Your task to perform on an android device: delete browsing data in the chrome app Image 0: 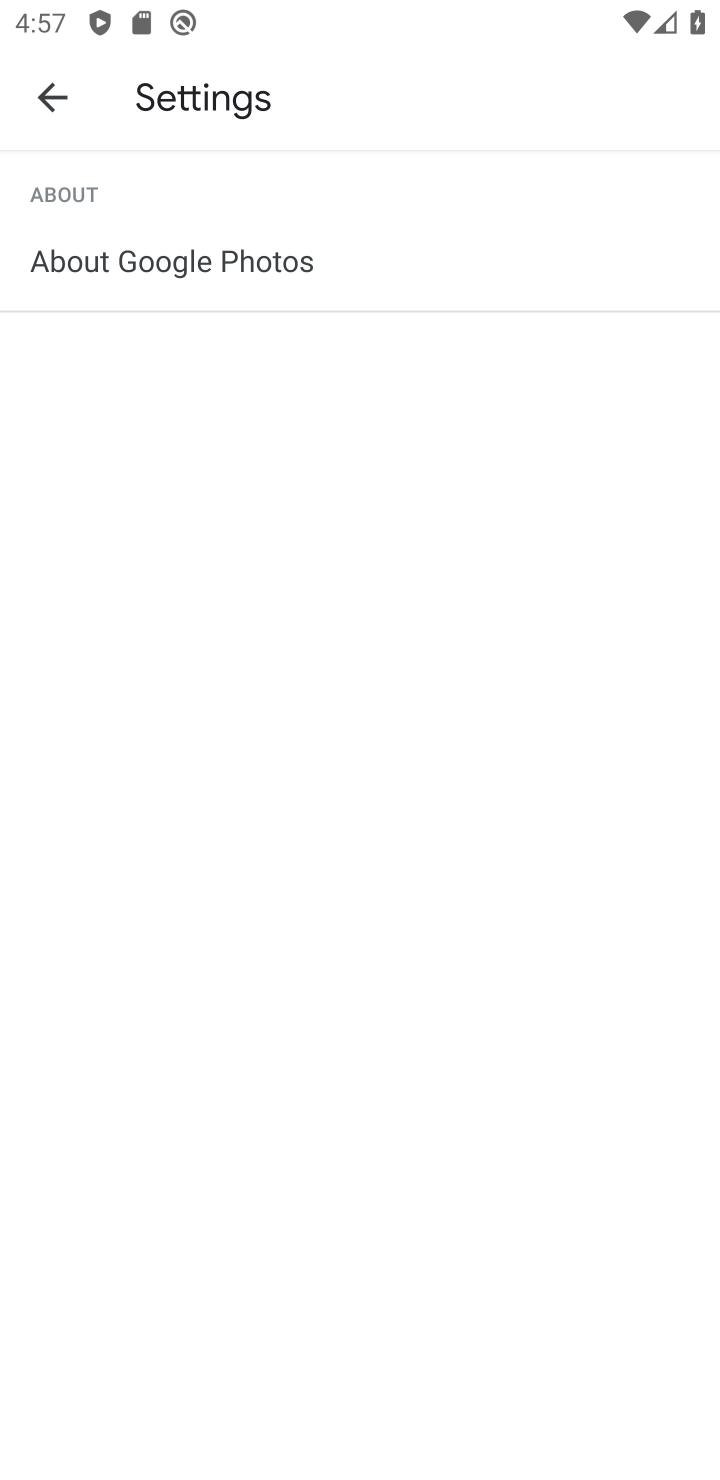
Step 0: press home button
Your task to perform on an android device: delete browsing data in the chrome app Image 1: 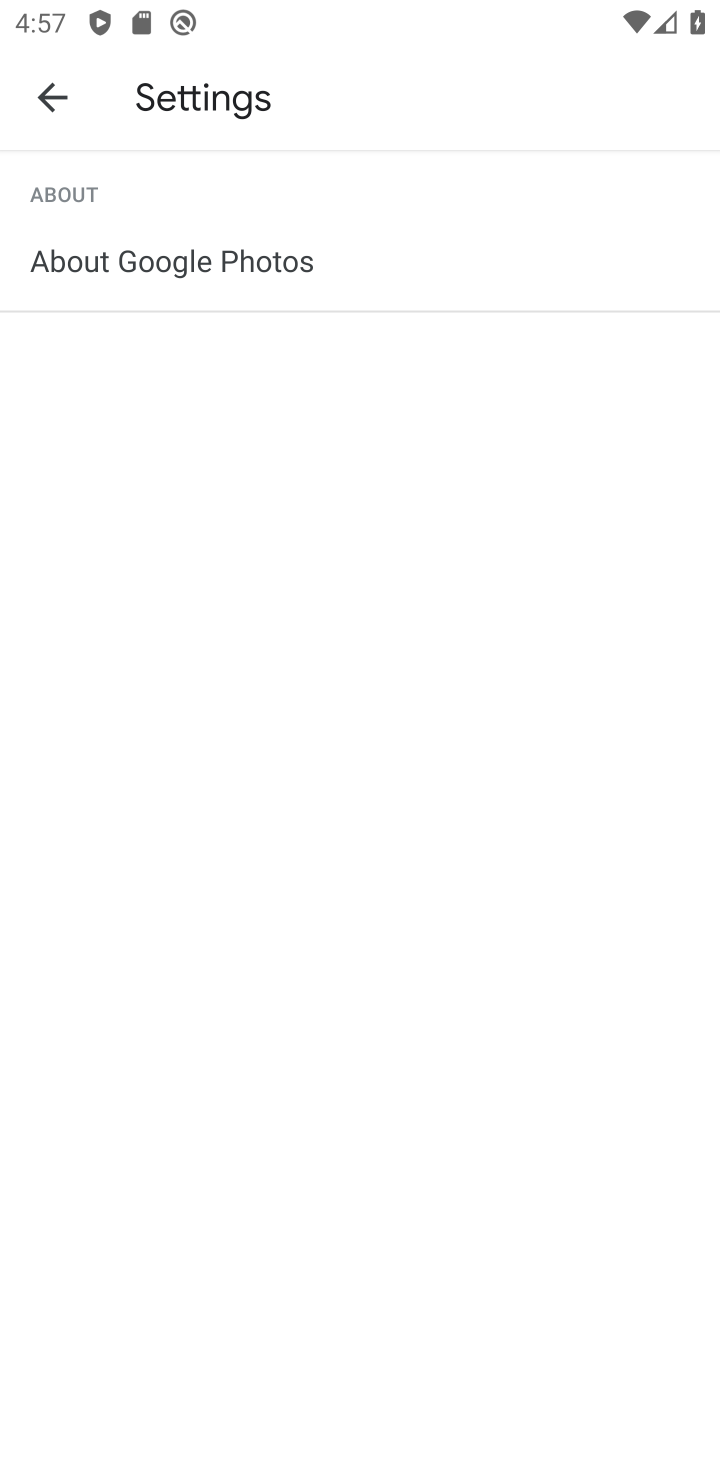
Step 1: press home button
Your task to perform on an android device: delete browsing data in the chrome app Image 2: 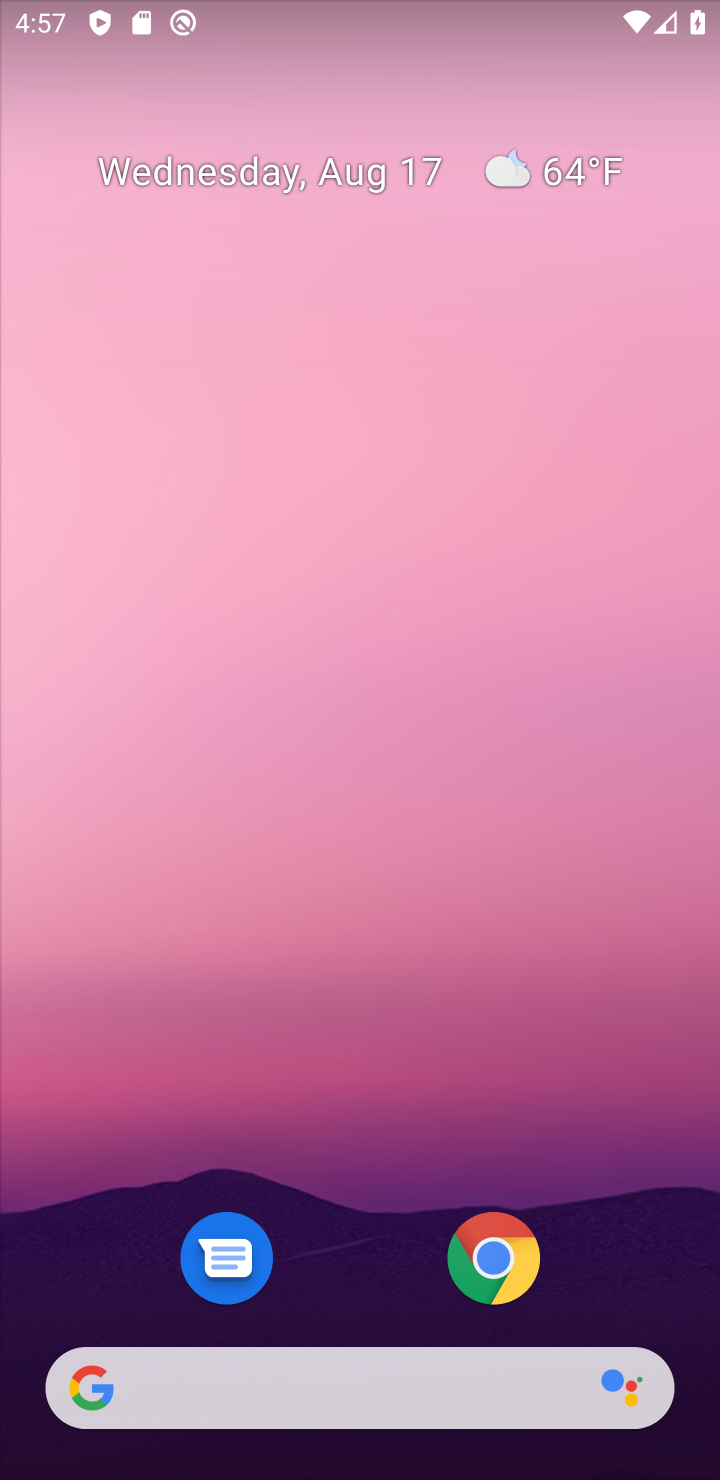
Step 2: drag from (383, 866) to (478, 225)
Your task to perform on an android device: delete browsing data in the chrome app Image 3: 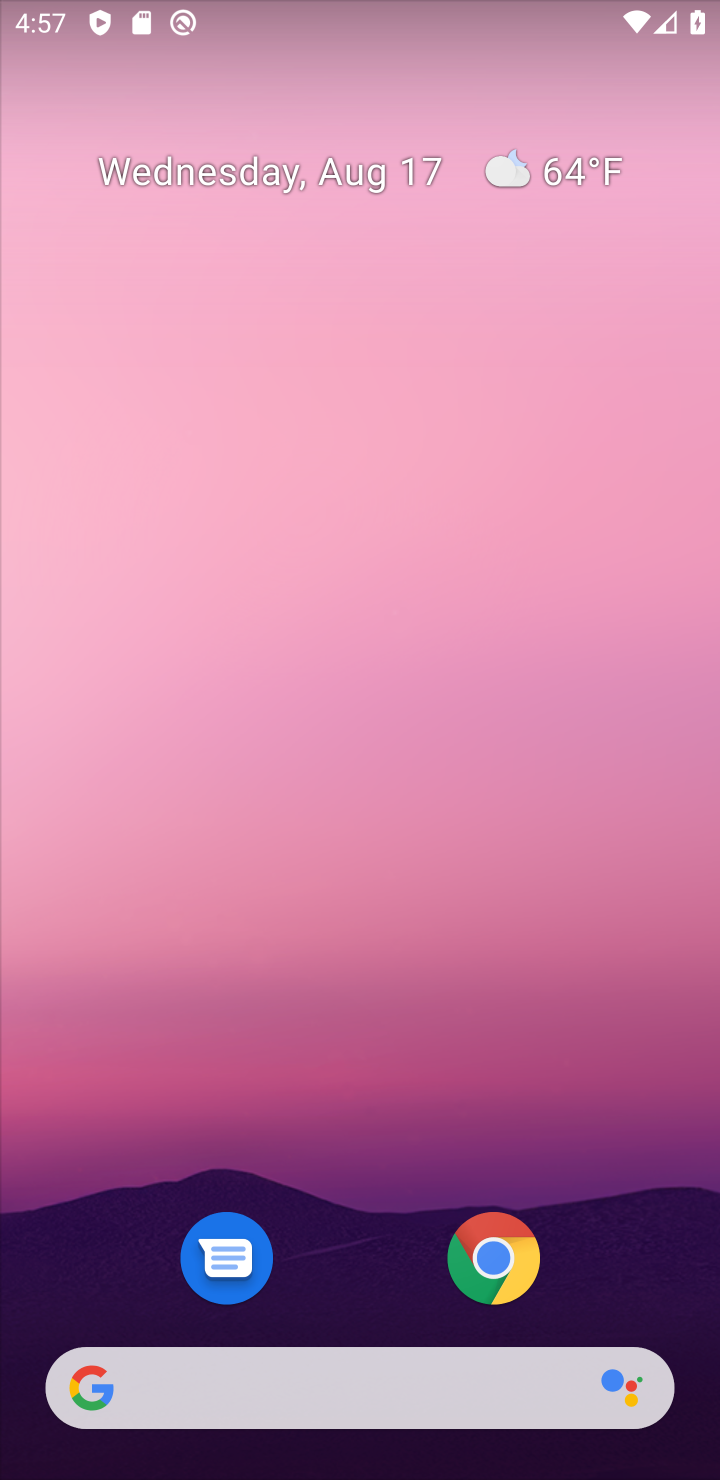
Step 3: drag from (345, 936) to (536, 0)
Your task to perform on an android device: delete browsing data in the chrome app Image 4: 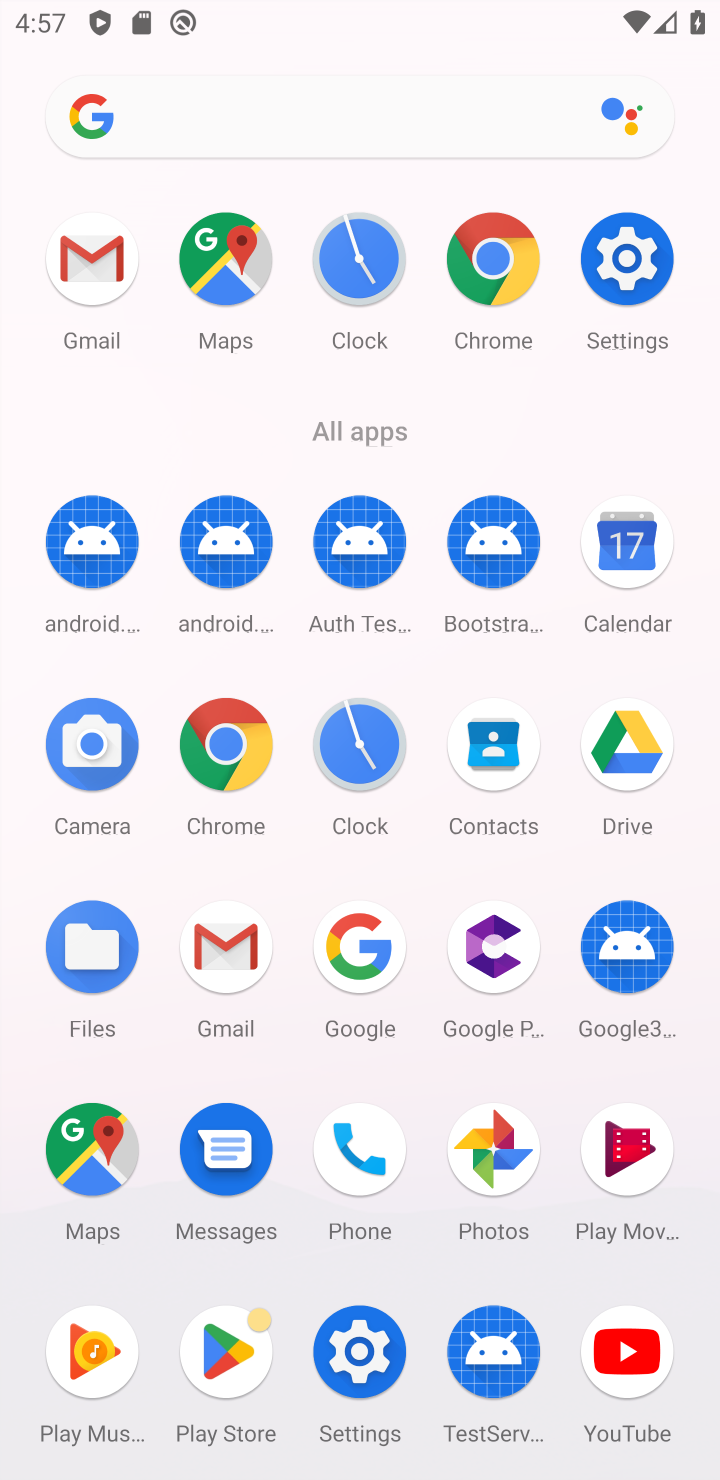
Step 4: click (209, 754)
Your task to perform on an android device: delete browsing data in the chrome app Image 5: 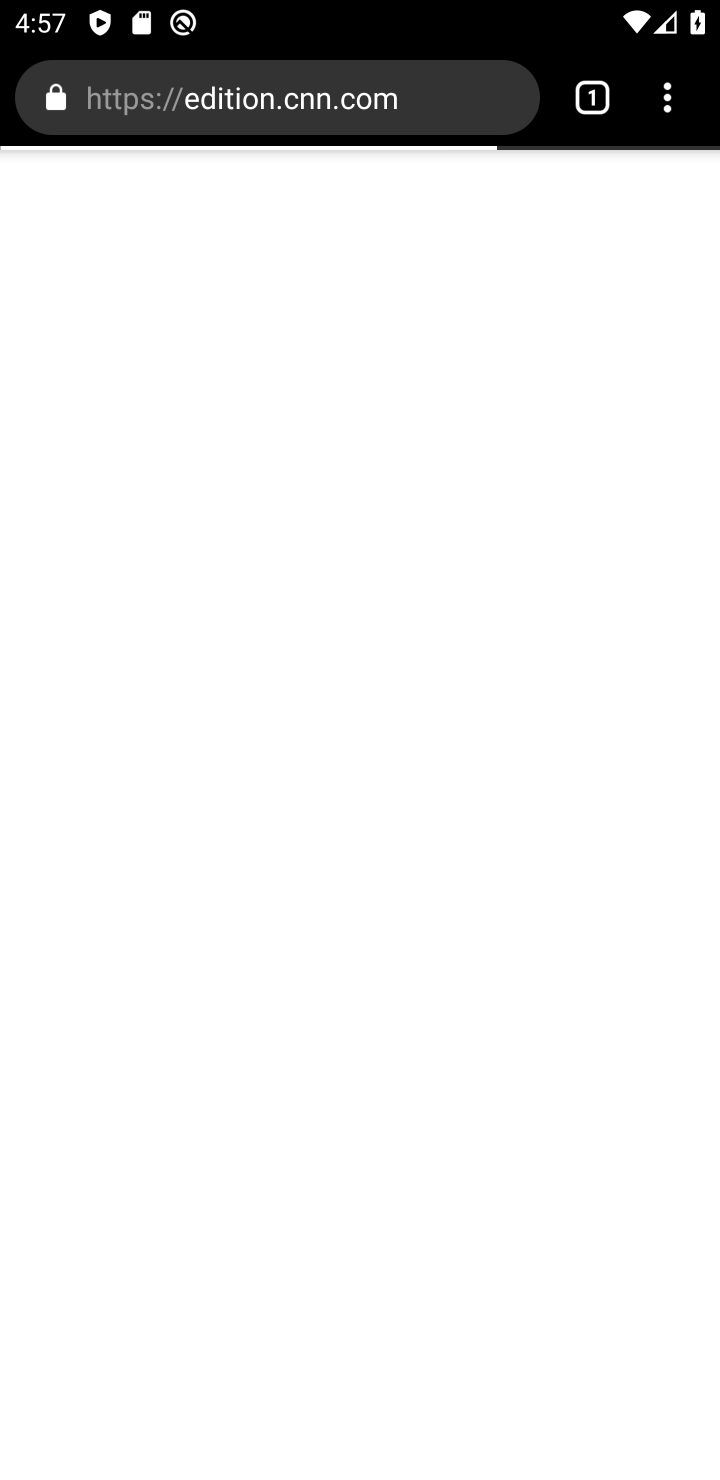
Step 5: drag from (674, 100) to (323, 571)
Your task to perform on an android device: delete browsing data in the chrome app Image 6: 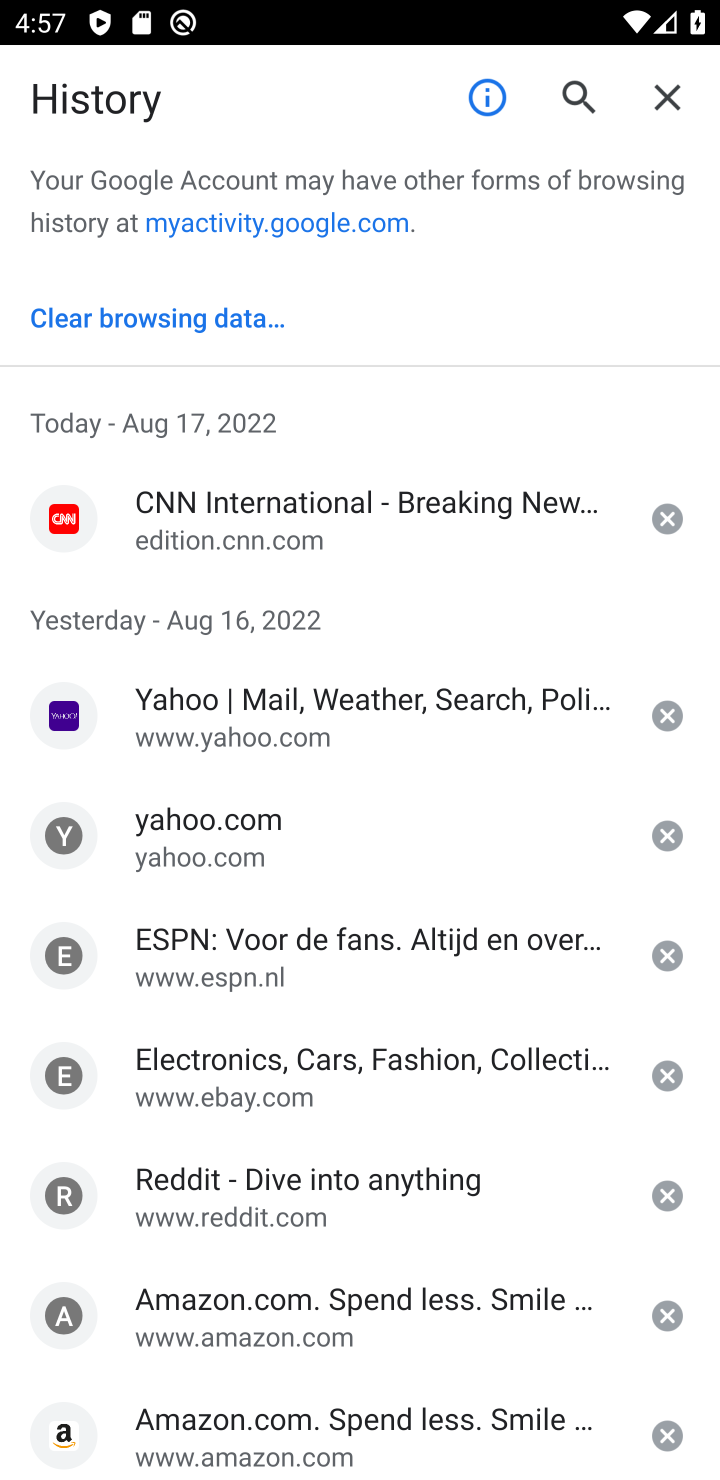
Step 6: click (225, 327)
Your task to perform on an android device: delete browsing data in the chrome app Image 7: 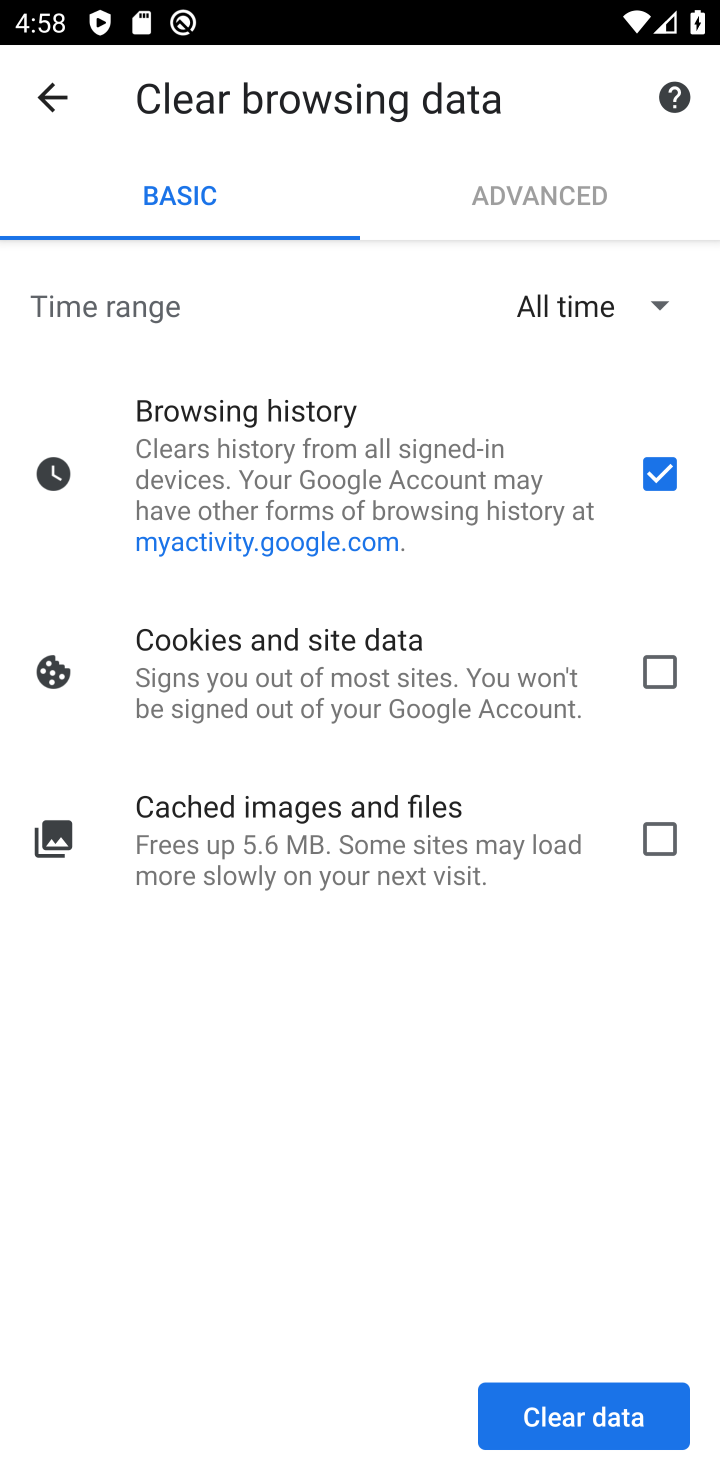
Step 7: click (666, 660)
Your task to perform on an android device: delete browsing data in the chrome app Image 8: 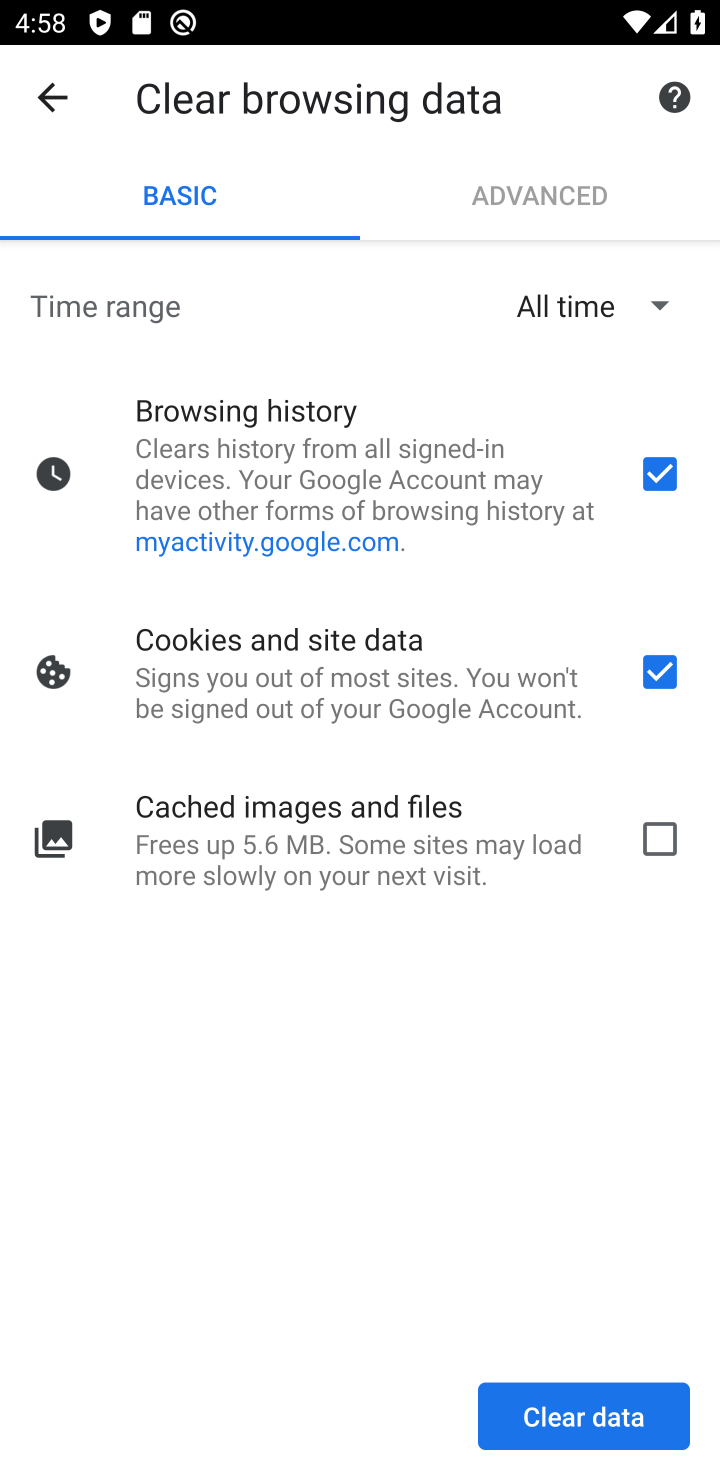
Step 8: click (646, 825)
Your task to perform on an android device: delete browsing data in the chrome app Image 9: 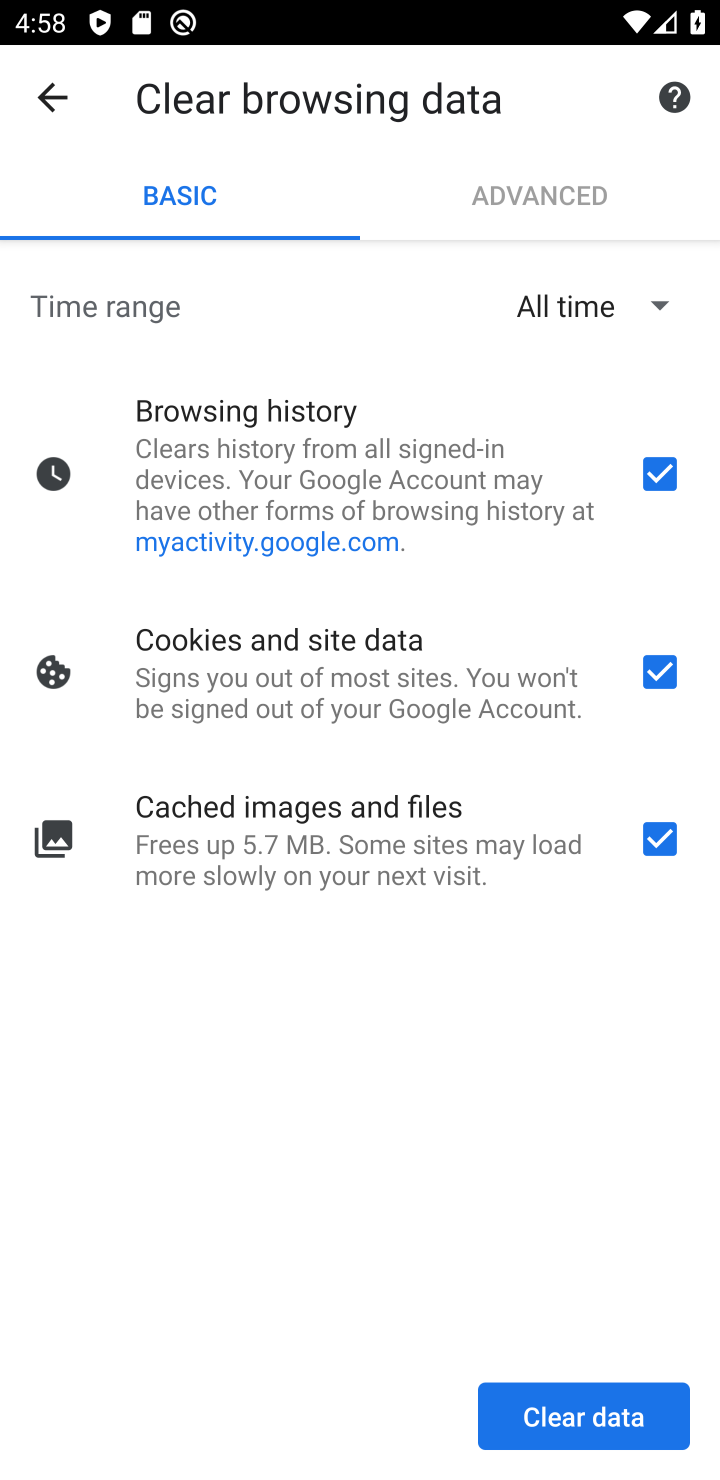
Step 9: click (600, 1408)
Your task to perform on an android device: delete browsing data in the chrome app Image 10: 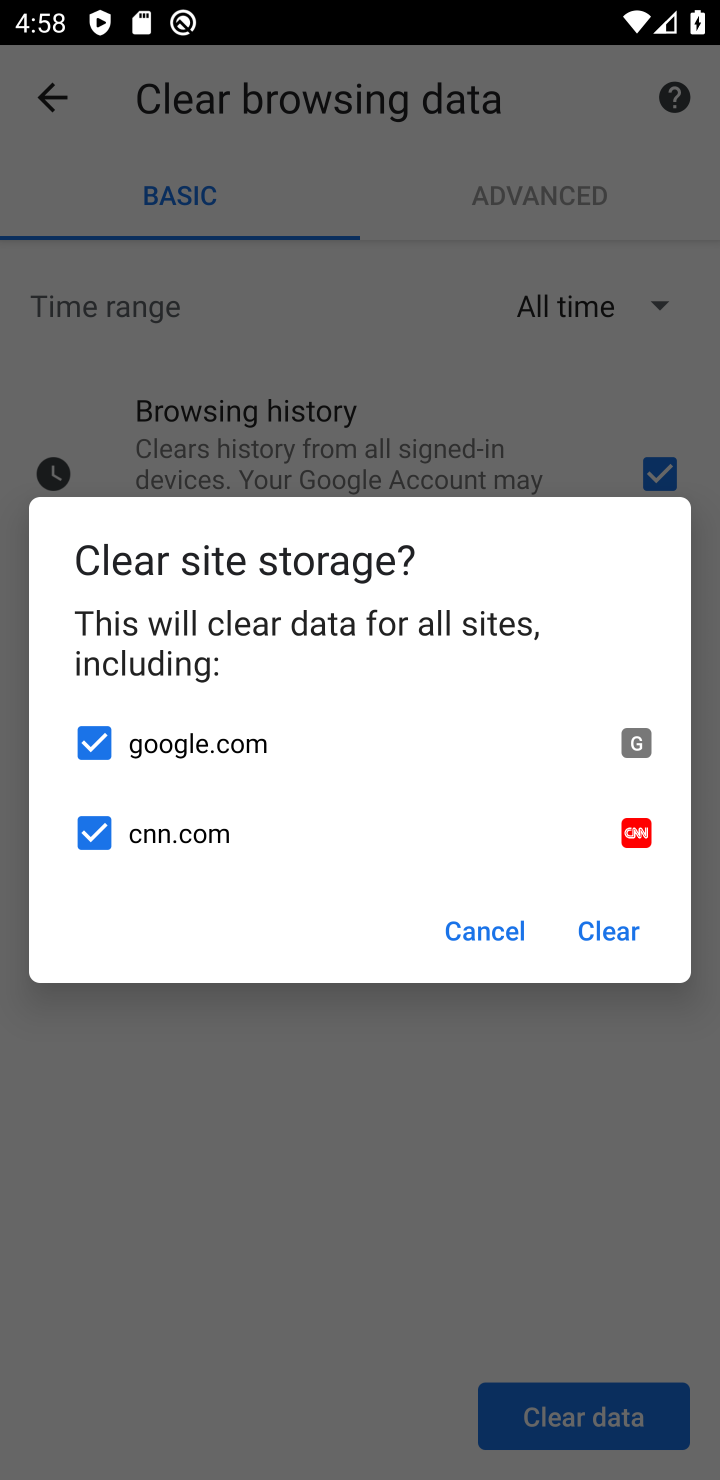
Step 10: click (605, 922)
Your task to perform on an android device: delete browsing data in the chrome app Image 11: 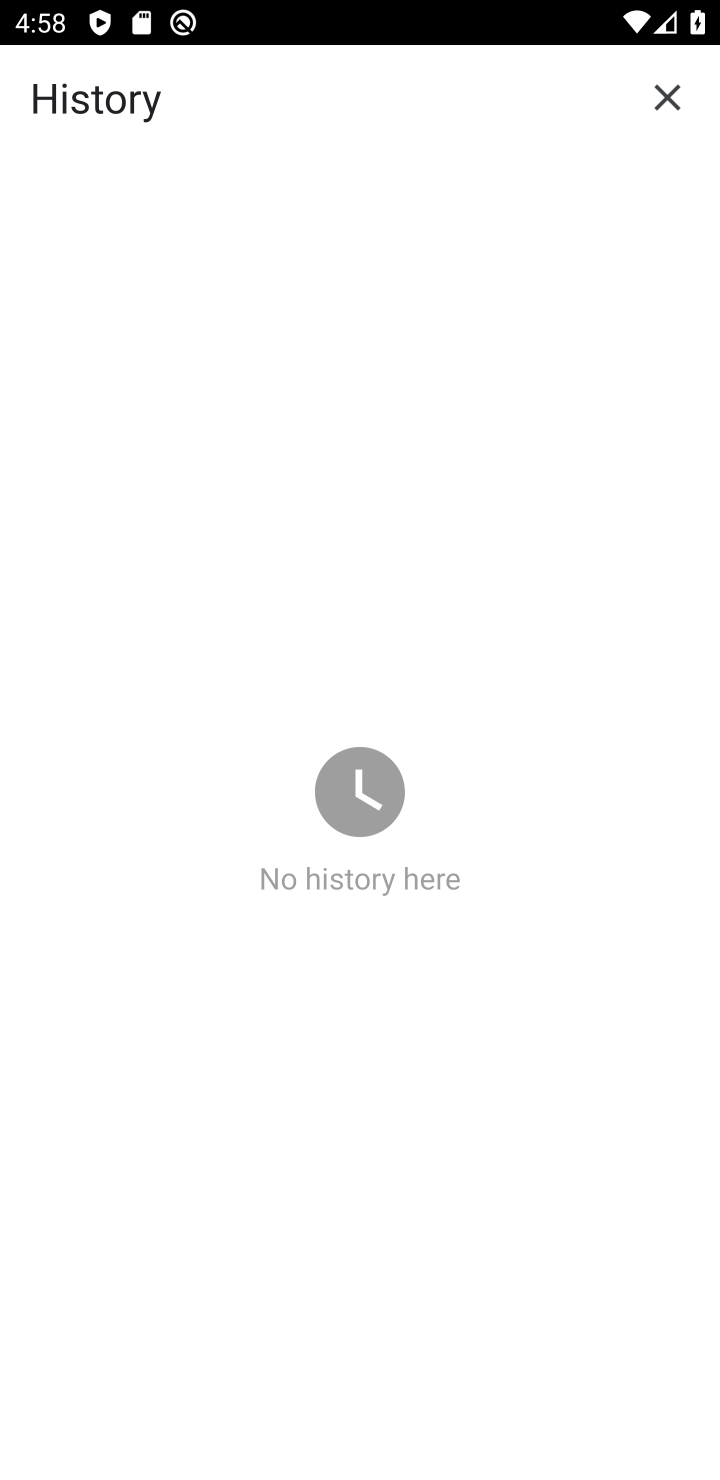
Step 11: task complete